Your task to perform on an android device: uninstall "Paramount+ | Peak Streaming" Image 0: 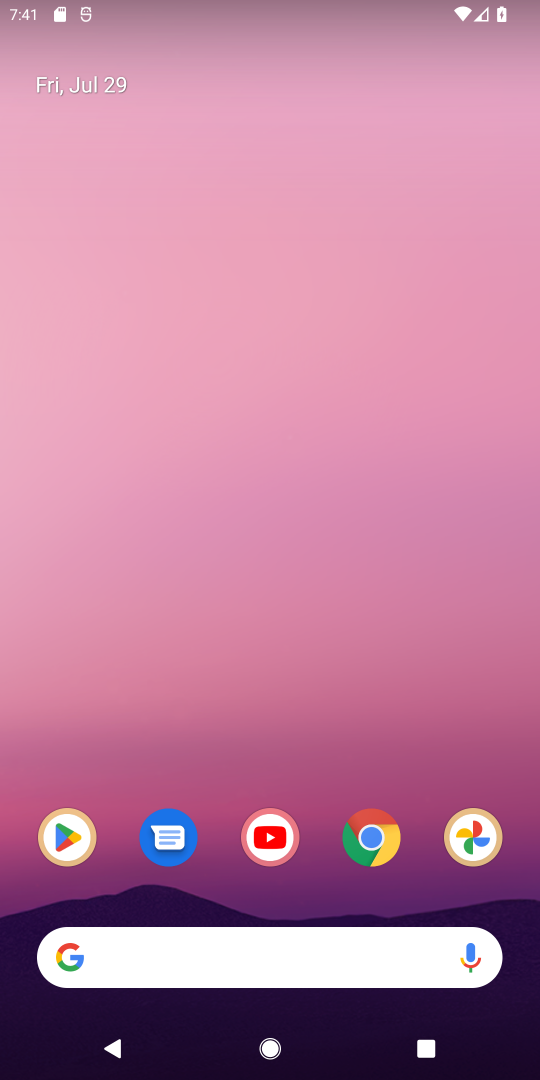
Step 0: click (58, 843)
Your task to perform on an android device: uninstall "Paramount+ | Peak Streaming" Image 1: 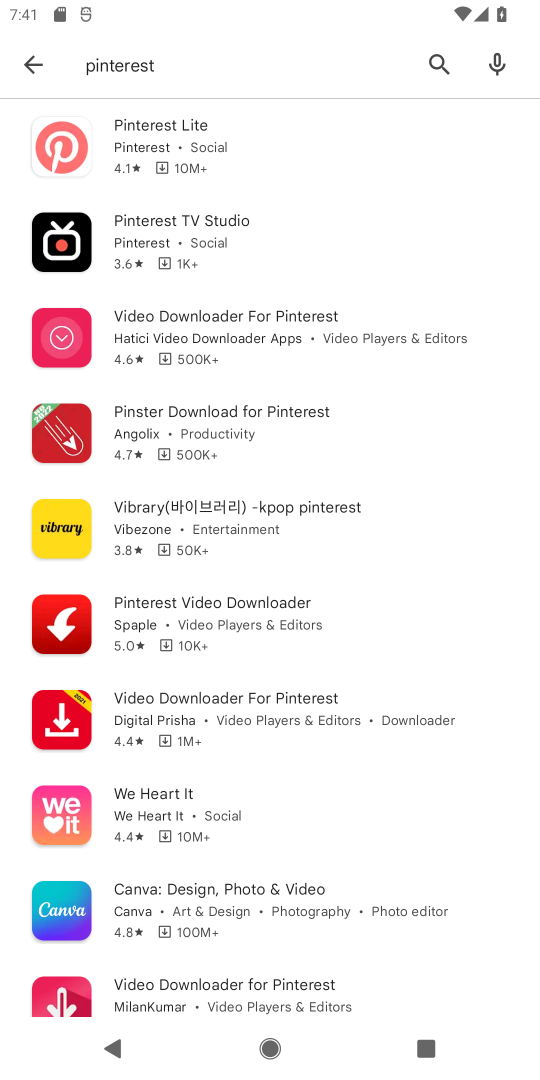
Step 1: click (447, 72)
Your task to perform on an android device: uninstall "Paramount+ | Peak Streaming" Image 2: 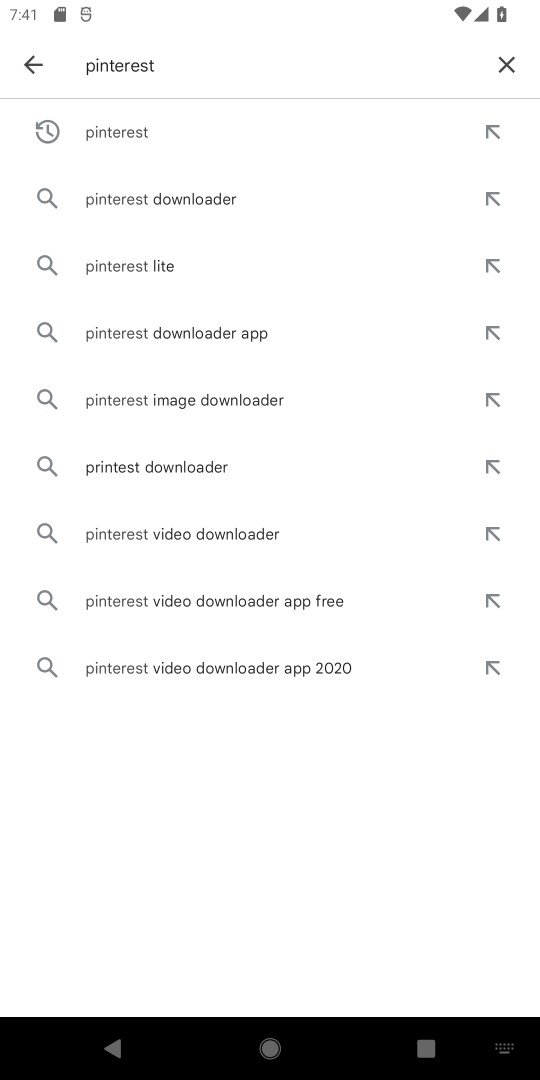
Step 2: click (515, 58)
Your task to perform on an android device: uninstall "Paramount+ | Peak Streaming" Image 3: 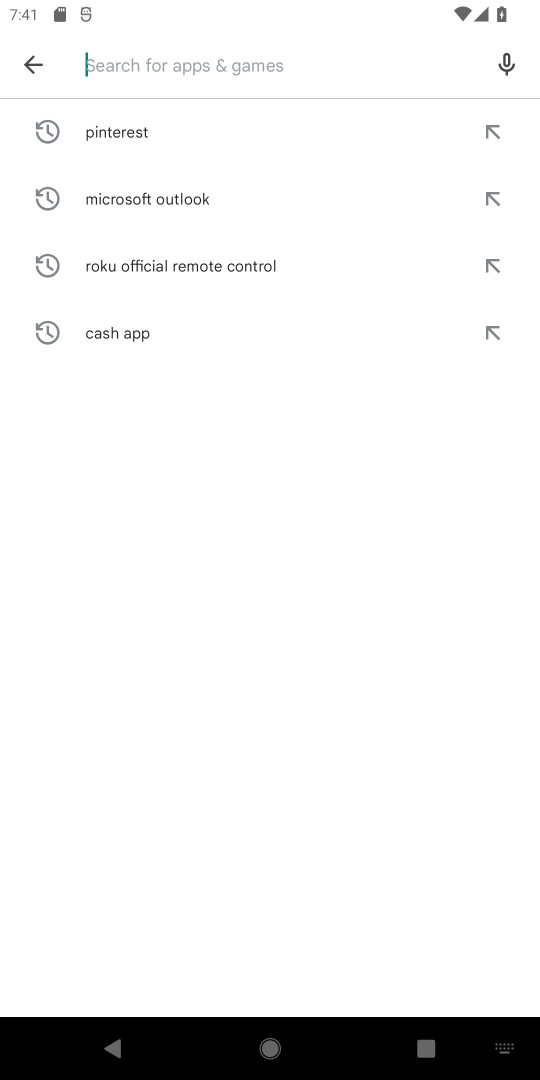
Step 3: type "paramount+ peak stre"
Your task to perform on an android device: uninstall "Paramount+ | Peak Streaming" Image 4: 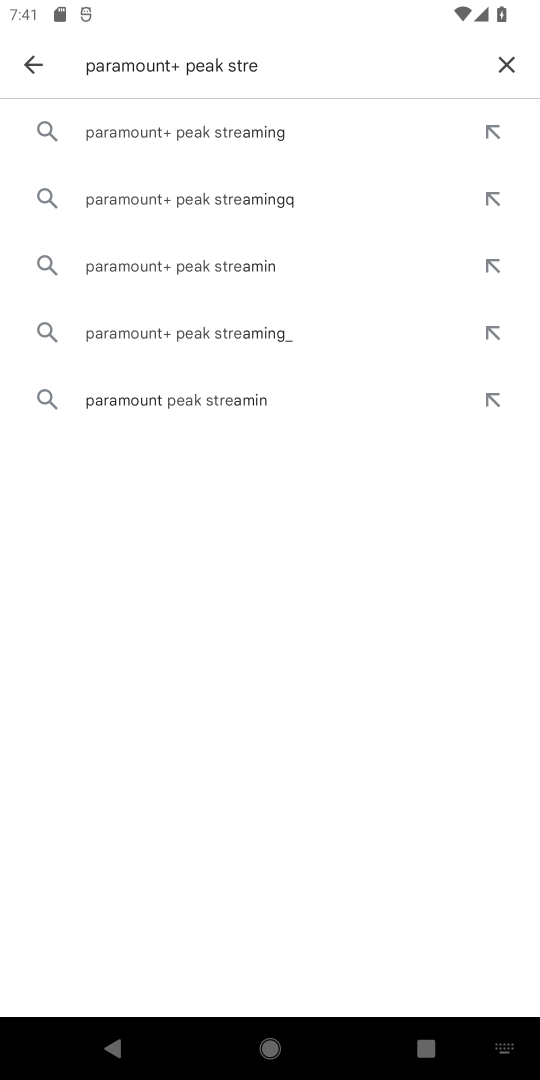
Step 4: click (289, 104)
Your task to perform on an android device: uninstall "Paramount+ | Peak Streaming" Image 5: 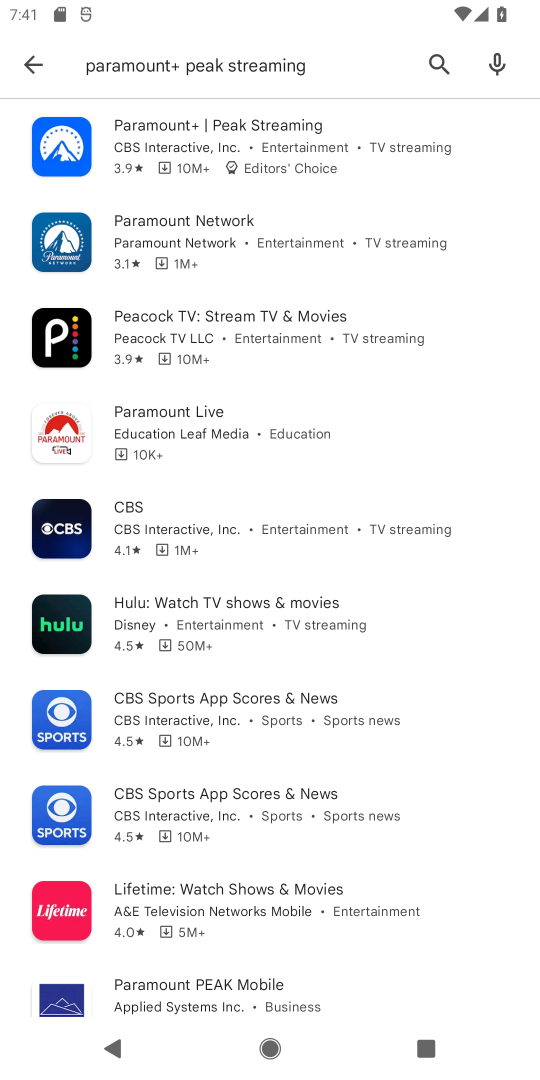
Step 5: click (316, 122)
Your task to perform on an android device: uninstall "Paramount+ | Peak Streaming" Image 6: 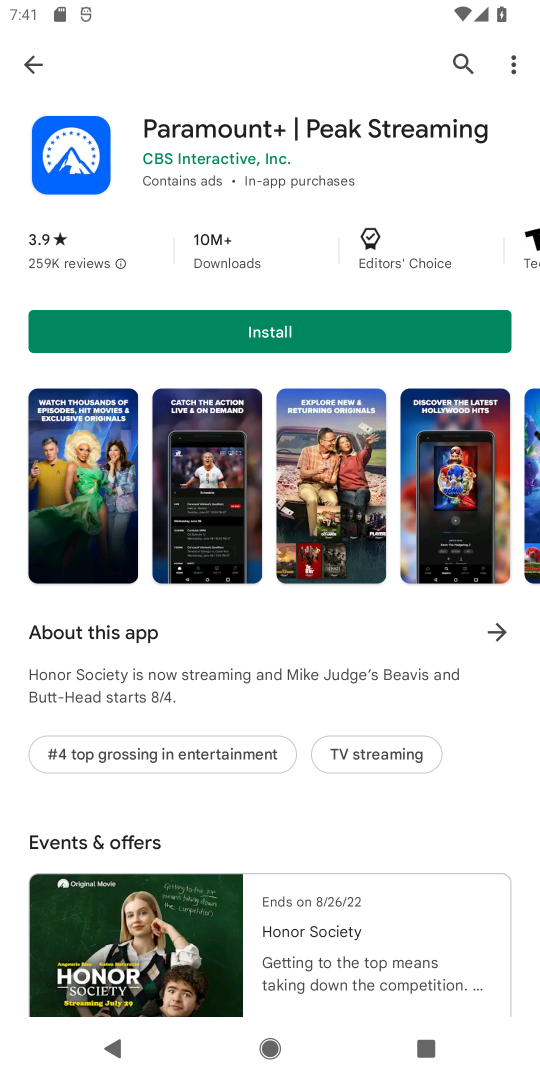
Step 6: task complete